Your task to perform on an android device: toggle sleep mode Image 0: 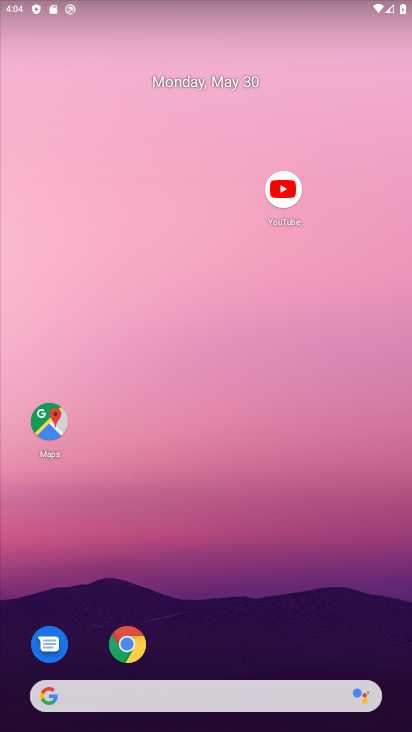
Step 0: drag from (247, 623) to (252, 427)
Your task to perform on an android device: toggle sleep mode Image 1: 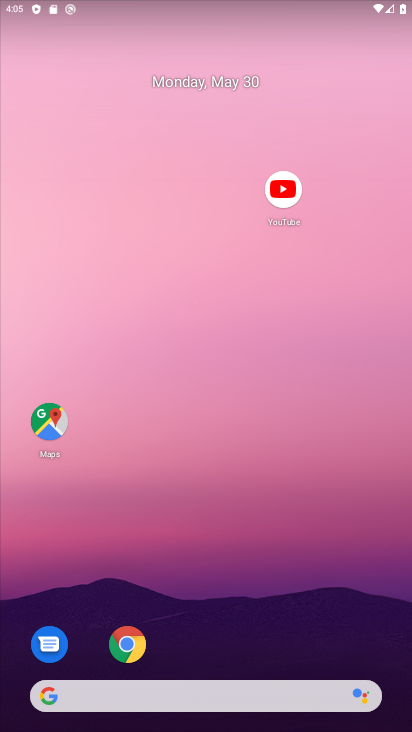
Step 1: drag from (194, 651) to (172, 42)
Your task to perform on an android device: toggle sleep mode Image 2: 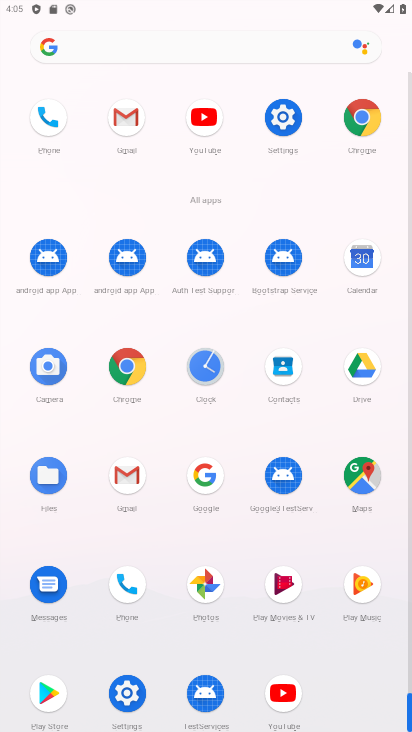
Step 2: click (295, 118)
Your task to perform on an android device: toggle sleep mode Image 3: 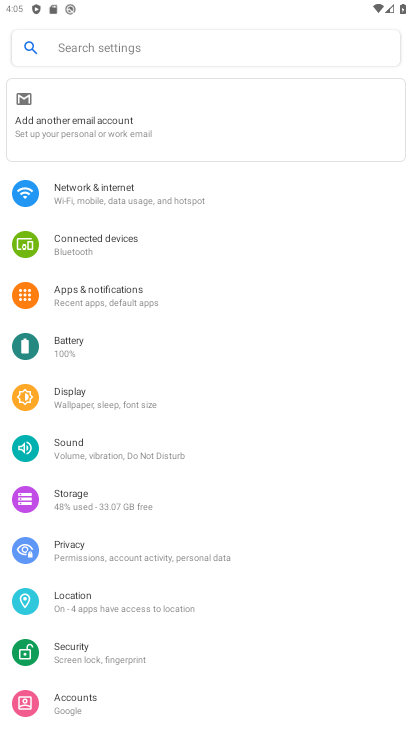
Step 3: task complete